Your task to perform on an android device: turn on sleep mode Image 0: 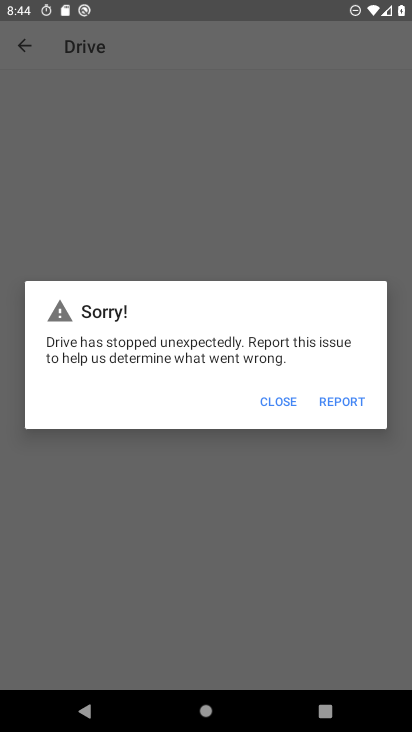
Step 0: press home button
Your task to perform on an android device: turn on sleep mode Image 1: 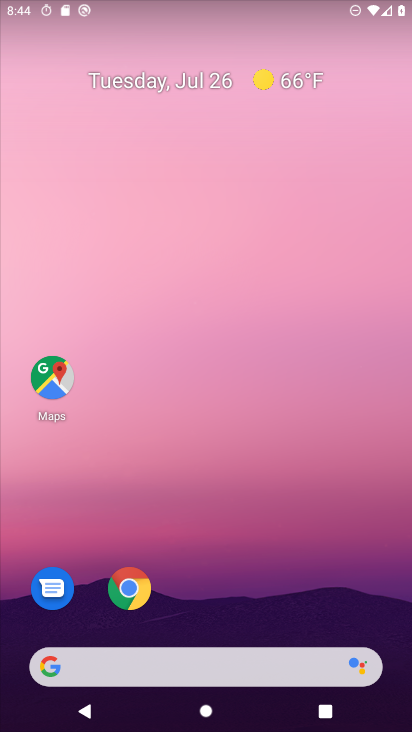
Step 1: drag from (236, 708) to (213, 261)
Your task to perform on an android device: turn on sleep mode Image 2: 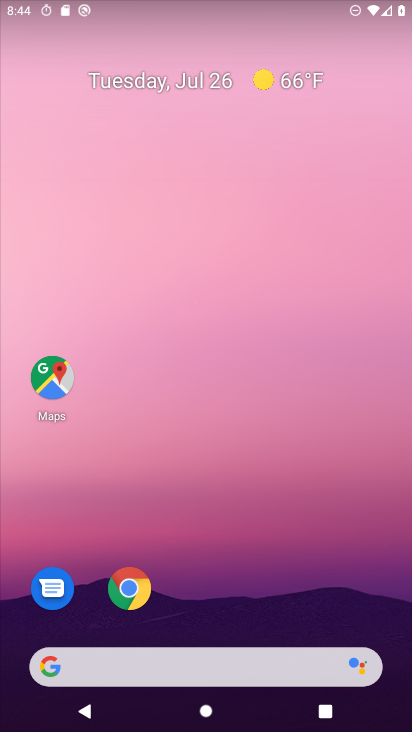
Step 2: drag from (227, 728) to (231, 174)
Your task to perform on an android device: turn on sleep mode Image 3: 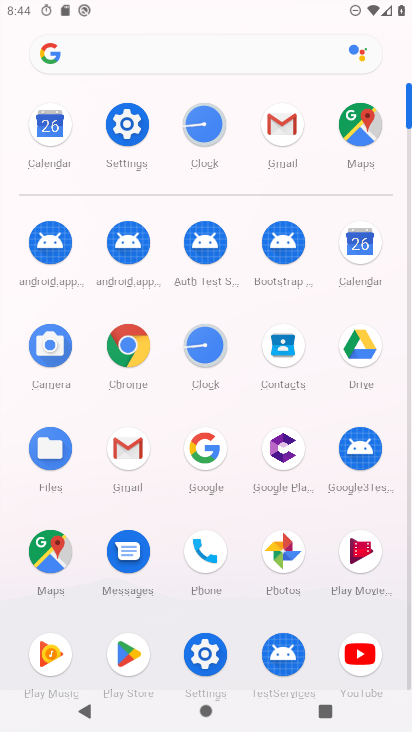
Step 3: click (128, 130)
Your task to perform on an android device: turn on sleep mode Image 4: 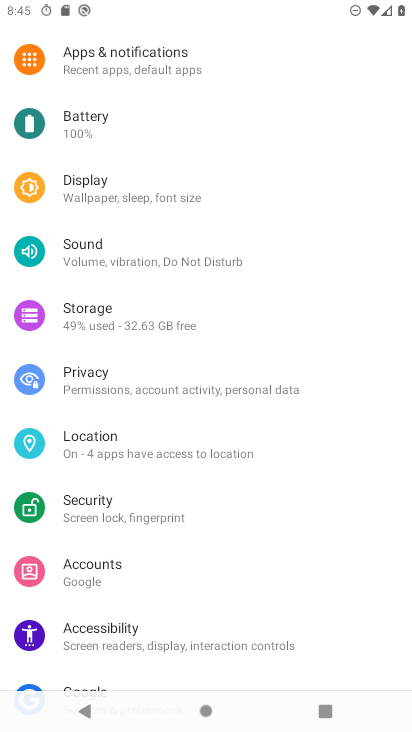
Step 4: click (107, 190)
Your task to perform on an android device: turn on sleep mode Image 5: 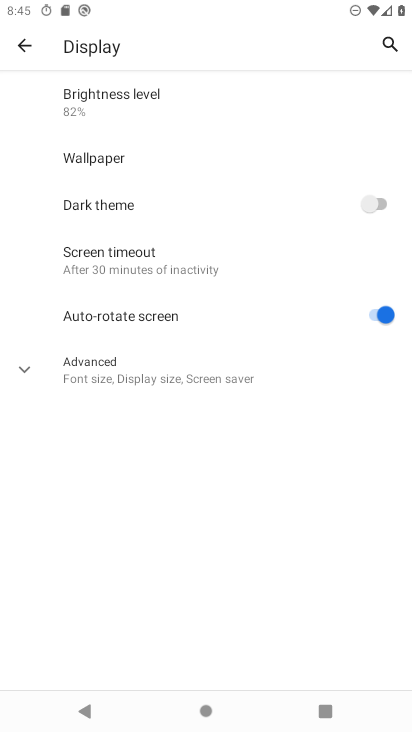
Step 5: click (25, 44)
Your task to perform on an android device: turn on sleep mode Image 6: 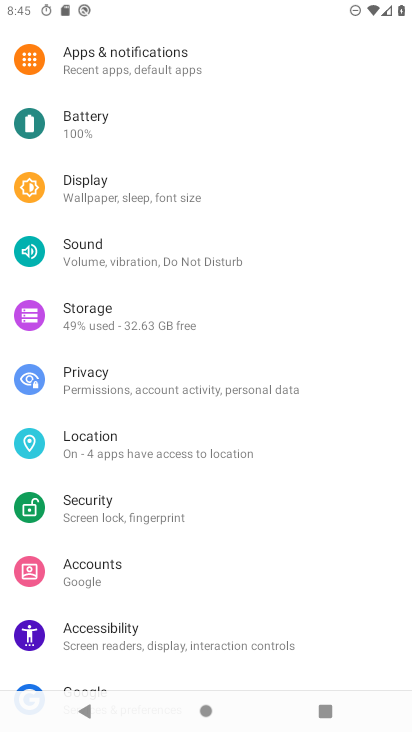
Step 6: task complete